Your task to perform on an android device: toggle improve location accuracy Image 0: 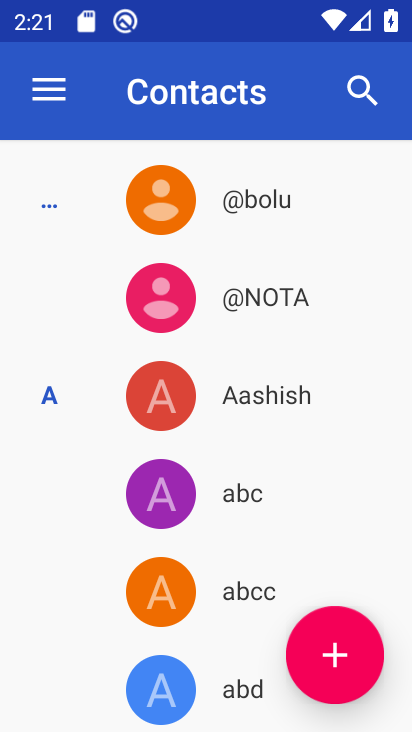
Step 0: press back button
Your task to perform on an android device: toggle improve location accuracy Image 1: 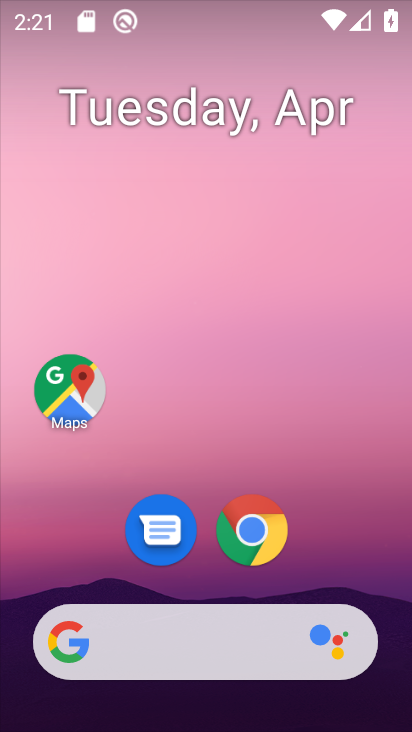
Step 1: drag from (199, 685) to (199, 97)
Your task to perform on an android device: toggle improve location accuracy Image 2: 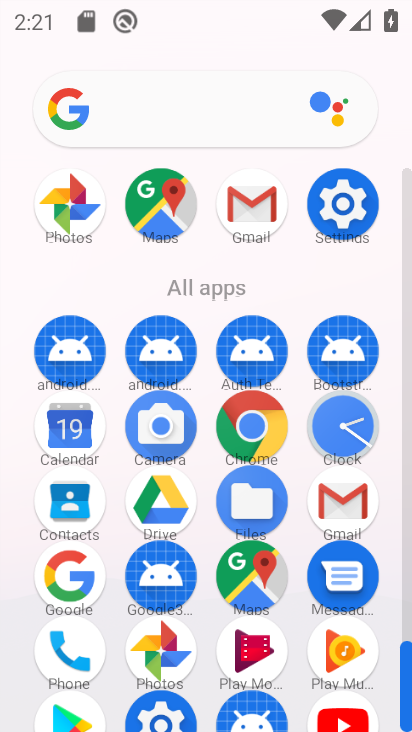
Step 2: click (340, 200)
Your task to perform on an android device: toggle improve location accuracy Image 3: 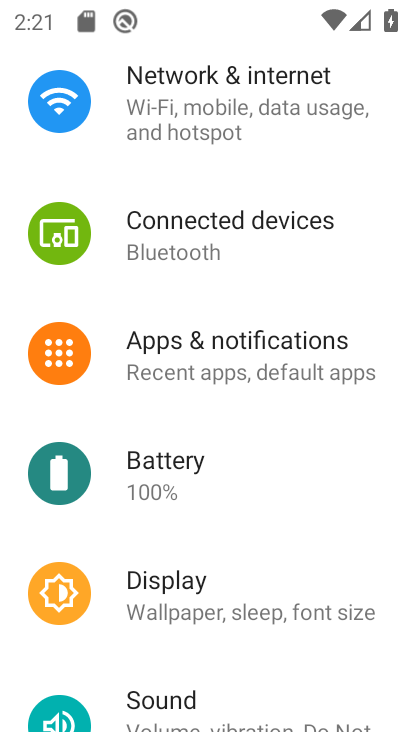
Step 3: drag from (194, 654) to (190, 123)
Your task to perform on an android device: toggle improve location accuracy Image 4: 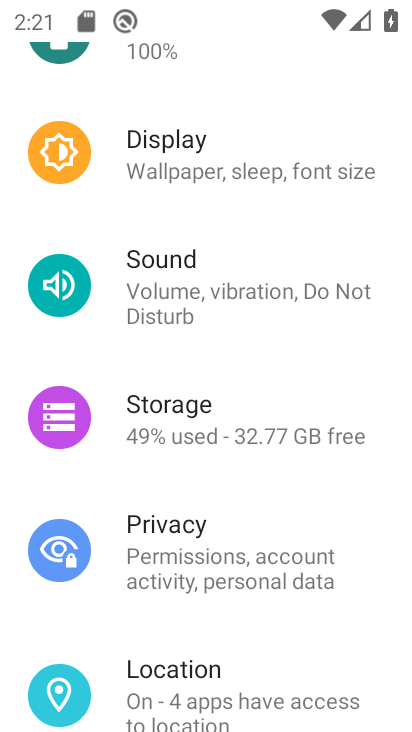
Step 4: click (192, 674)
Your task to perform on an android device: toggle improve location accuracy Image 5: 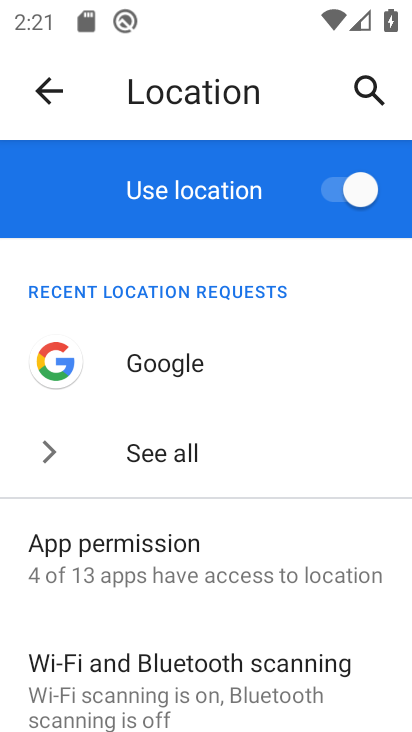
Step 5: drag from (187, 680) to (187, 157)
Your task to perform on an android device: toggle improve location accuracy Image 6: 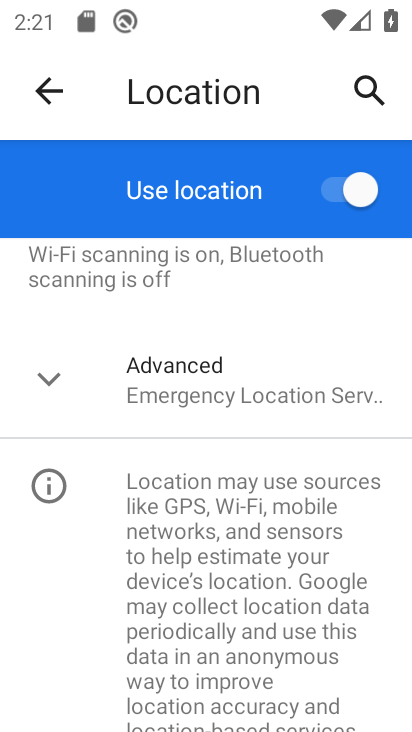
Step 6: click (189, 390)
Your task to perform on an android device: toggle improve location accuracy Image 7: 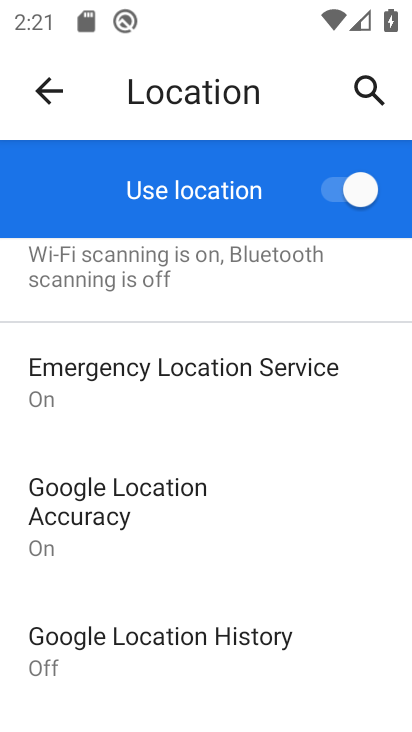
Step 7: click (104, 487)
Your task to perform on an android device: toggle improve location accuracy Image 8: 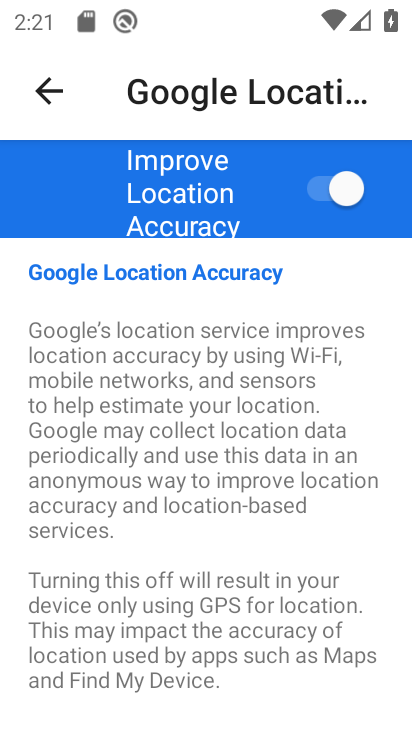
Step 8: click (319, 190)
Your task to perform on an android device: toggle improve location accuracy Image 9: 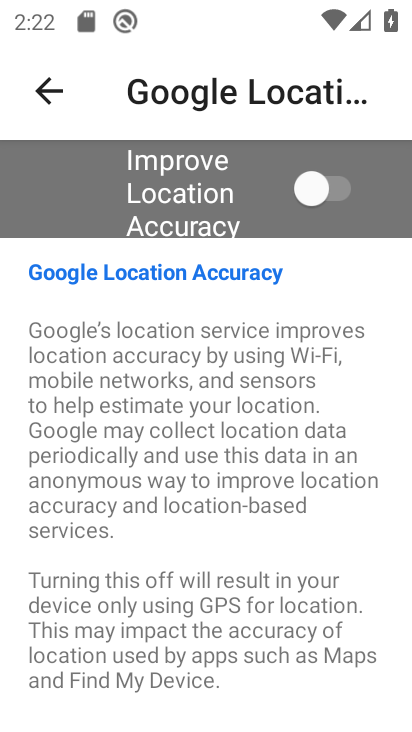
Step 9: task complete